Your task to perform on an android device: turn on javascript in the chrome app Image 0: 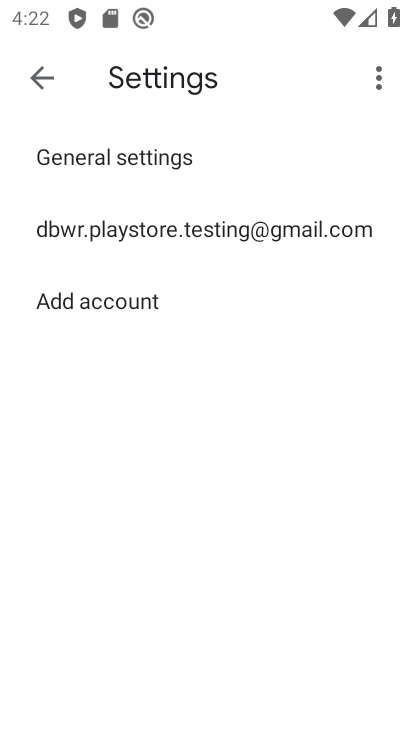
Step 0: click (39, 84)
Your task to perform on an android device: turn on javascript in the chrome app Image 1: 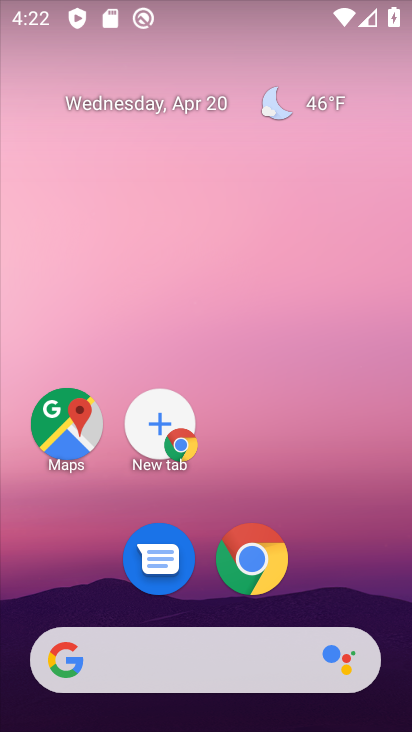
Step 1: click (251, 564)
Your task to perform on an android device: turn on javascript in the chrome app Image 2: 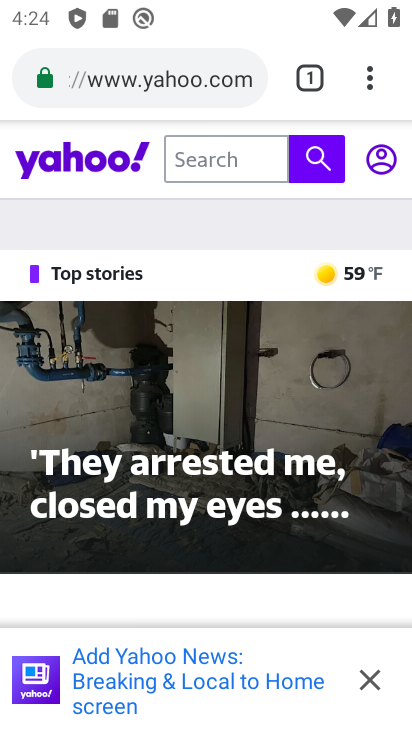
Step 2: click (372, 72)
Your task to perform on an android device: turn on javascript in the chrome app Image 3: 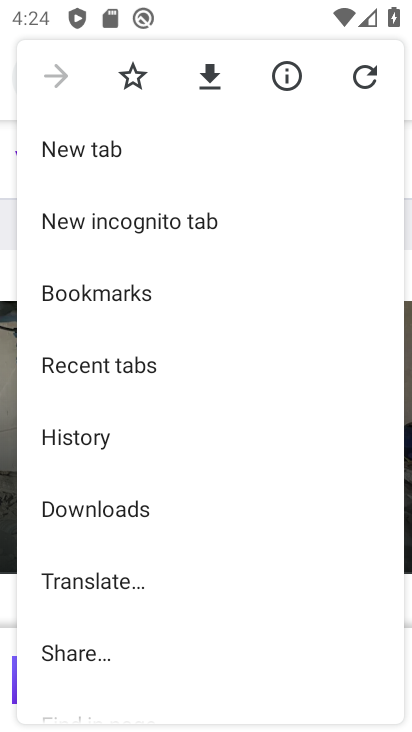
Step 3: drag from (195, 623) to (141, 232)
Your task to perform on an android device: turn on javascript in the chrome app Image 4: 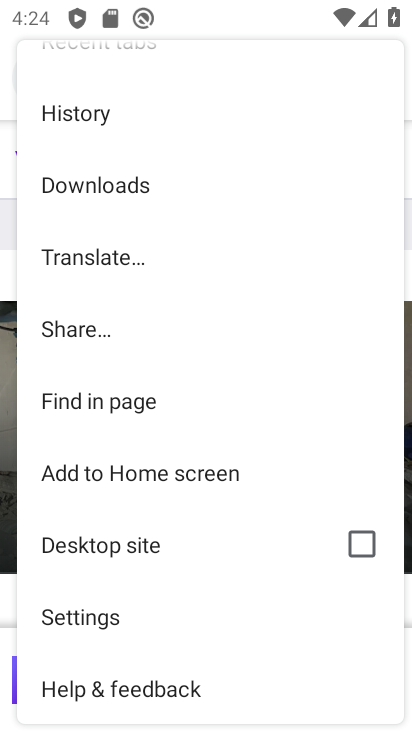
Step 4: click (124, 603)
Your task to perform on an android device: turn on javascript in the chrome app Image 5: 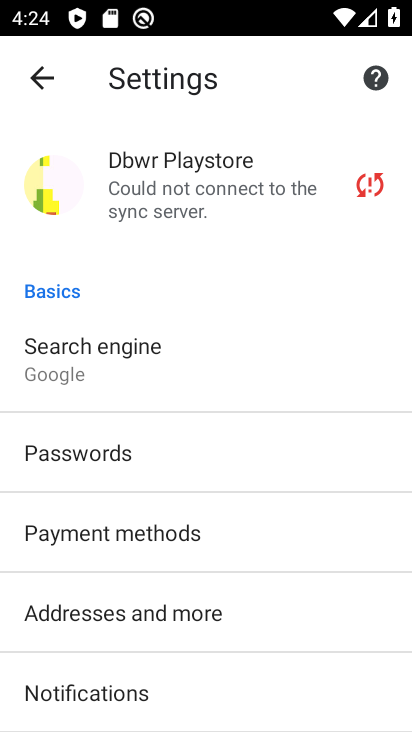
Step 5: drag from (223, 679) to (288, 339)
Your task to perform on an android device: turn on javascript in the chrome app Image 6: 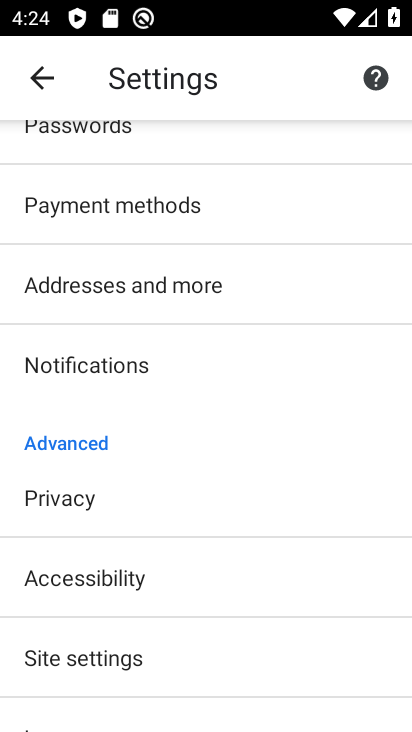
Step 6: click (184, 640)
Your task to perform on an android device: turn on javascript in the chrome app Image 7: 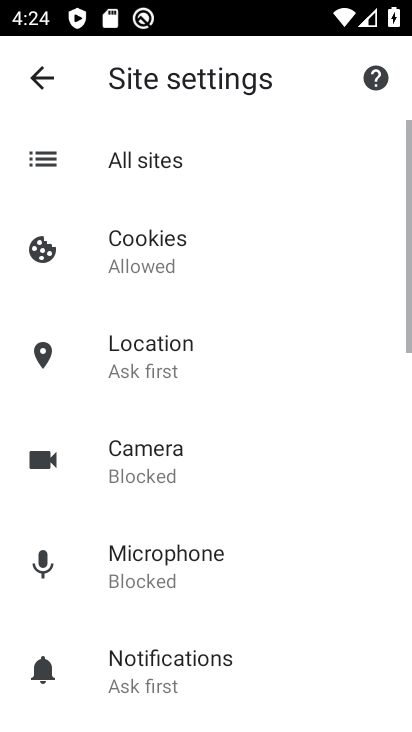
Step 7: drag from (318, 525) to (362, 95)
Your task to perform on an android device: turn on javascript in the chrome app Image 8: 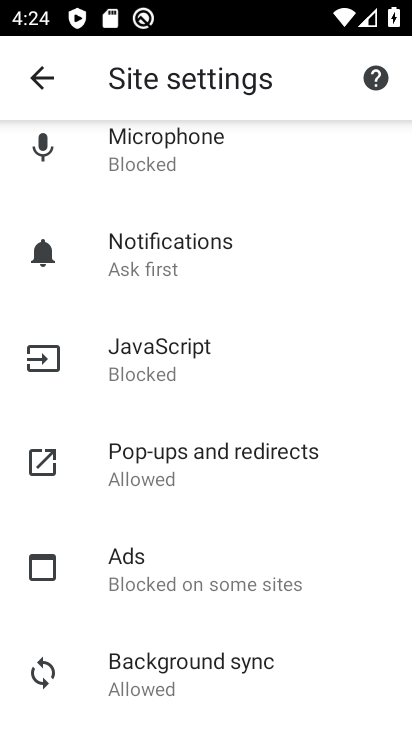
Step 8: click (259, 370)
Your task to perform on an android device: turn on javascript in the chrome app Image 9: 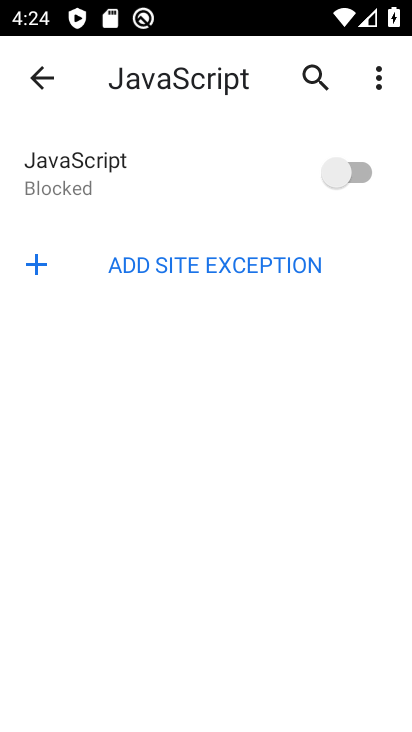
Step 9: click (355, 193)
Your task to perform on an android device: turn on javascript in the chrome app Image 10: 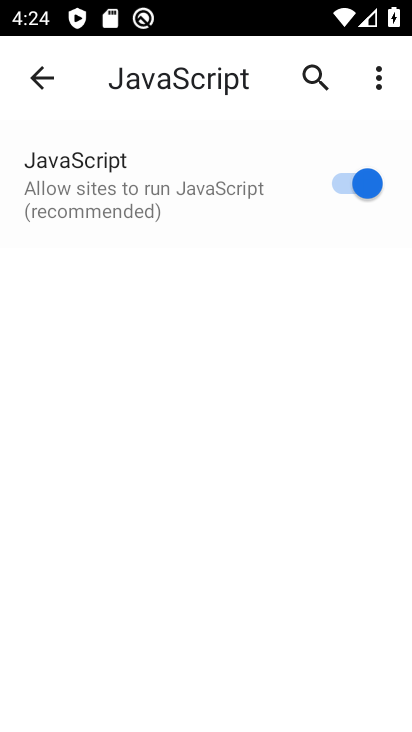
Step 10: task complete